Your task to perform on an android device: What is the news today? Image 0: 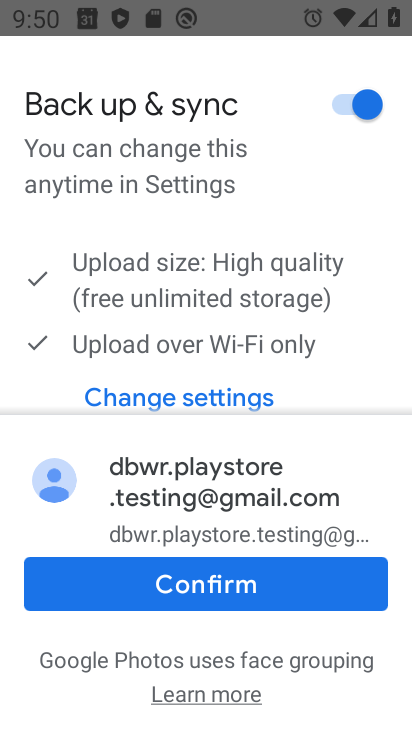
Step 0: press back button
Your task to perform on an android device: What is the news today? Image 1: 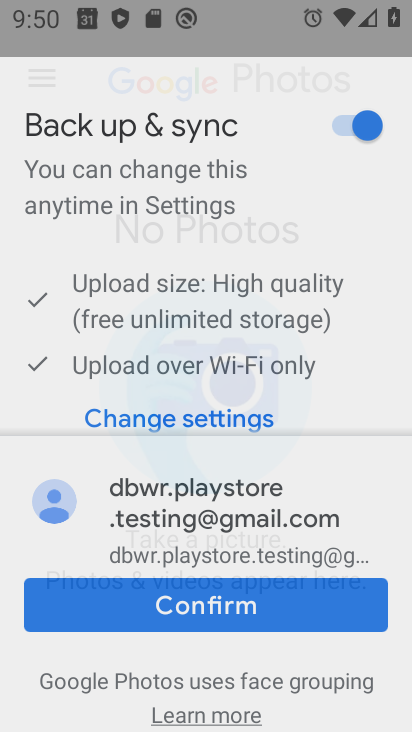
Step 1: task complete